Your task to perform on an android device: open a new tab in the chrome app Image 0: 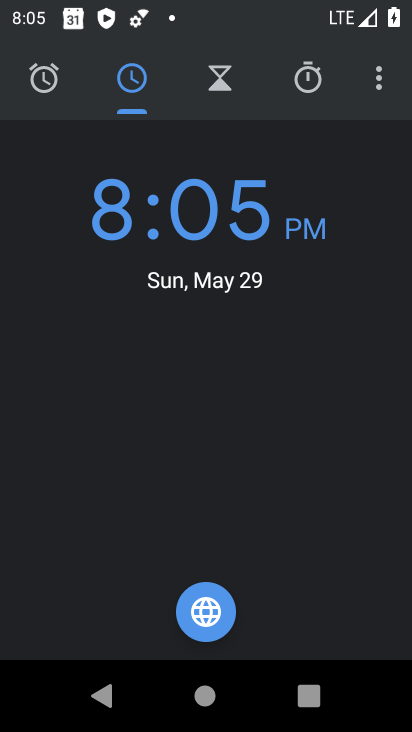
Step 0: press home button
Your task to perform on an android device: open a new tab in the chrome app Image 1: 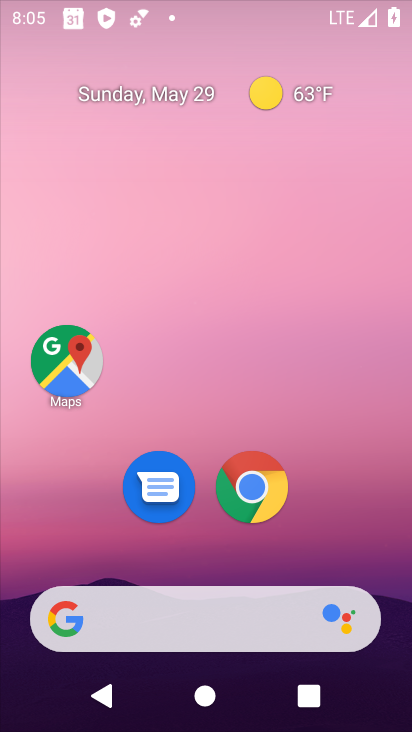
Step 1: drag from (209, 667) to (240, 183)
Your task to perform on an android device: open a new tab in the chrome app Image 2: 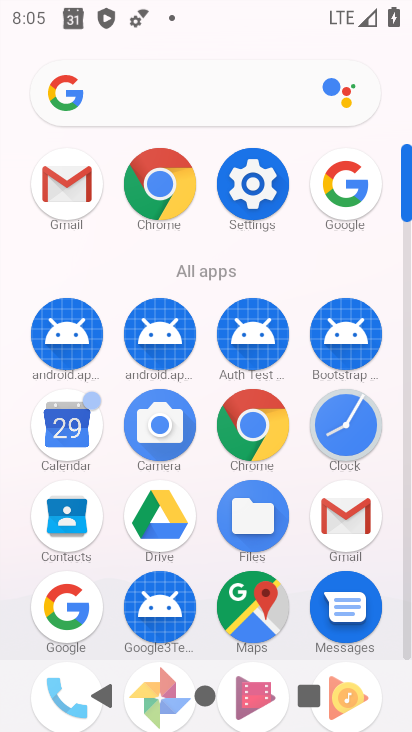
Step 2: click (267, 438)
Your task to perform on an android device: open a new tab in the chrome app Image 3: 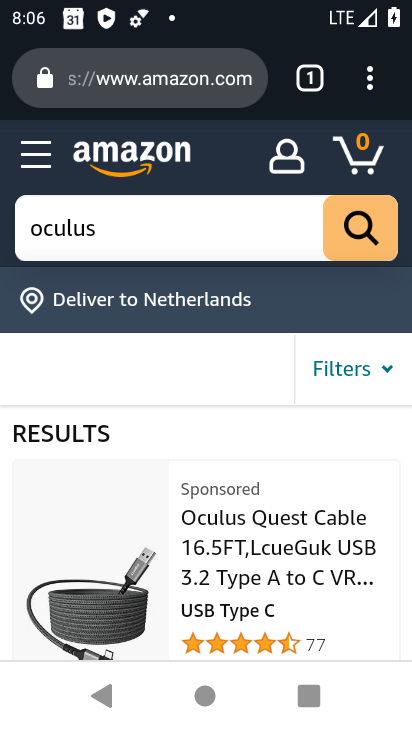
Step 3: drag from (239, 76) to (183, 427)
Your task to perform on an android device: open a new tab in the chrome app Image 4: 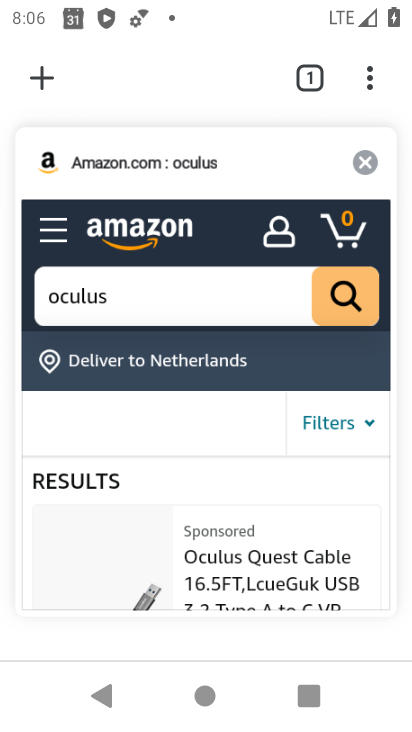
Step 4: click (42, 84)
Your task to perform on an android device: open a new tab in the chrome app Image 5: 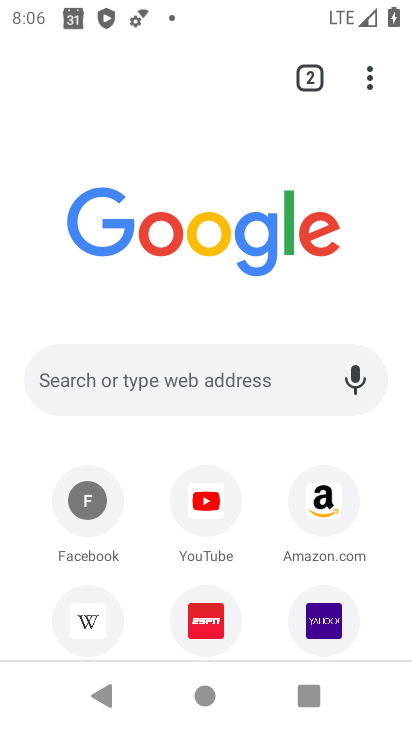
Step 5: task complete